Your task to perform on an android device: open app "Paramount+ | Peak Streaming" Image 0: 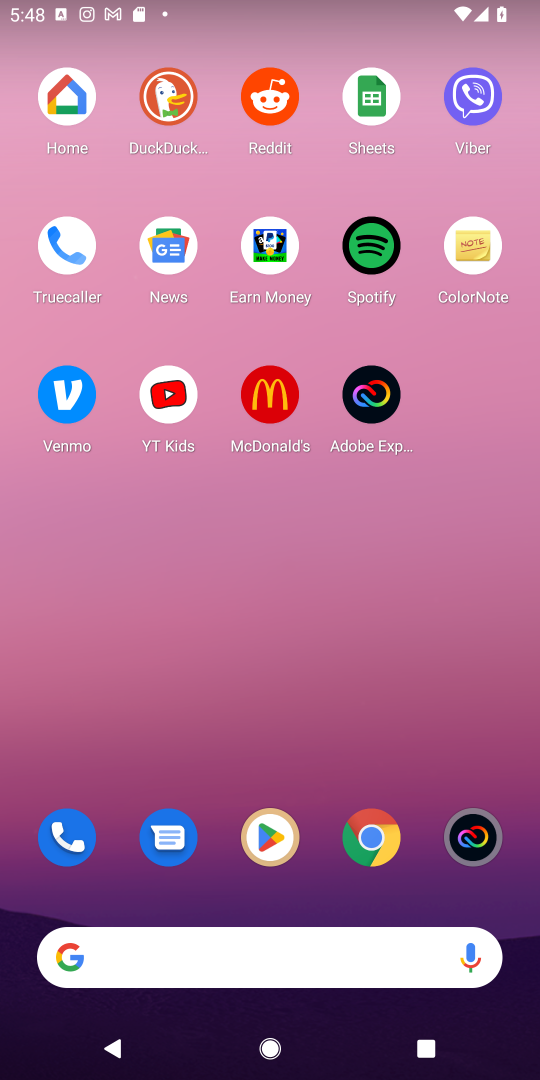
Step 0: press home button
Your task to perform on an android device: open app "Paramount+ | Peak Streaming" Image 1: 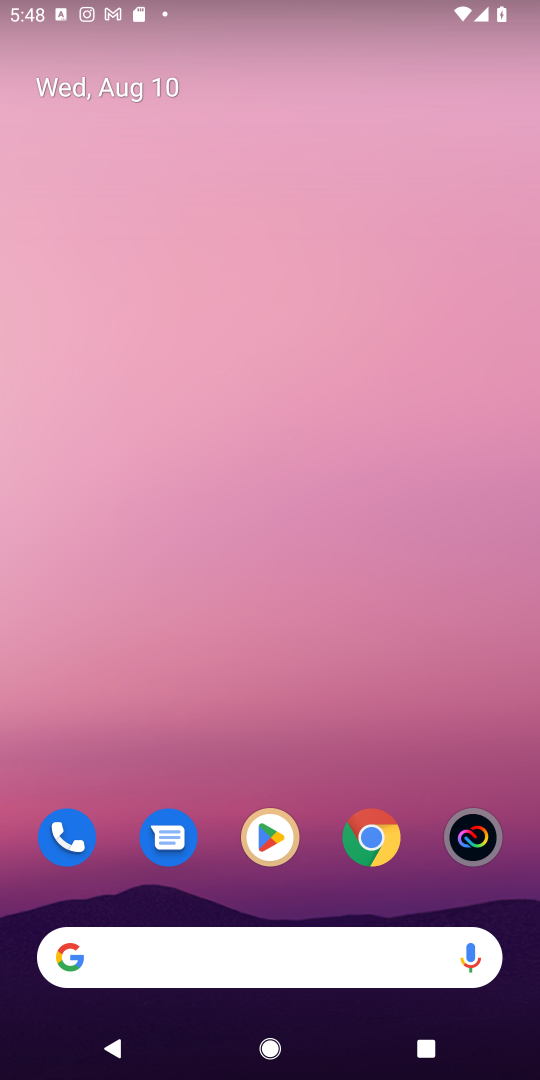
Step 1: click (268, 840)
Your task to perform on an android device: open app "Paramount+ | Peak Streaming" Image 2: 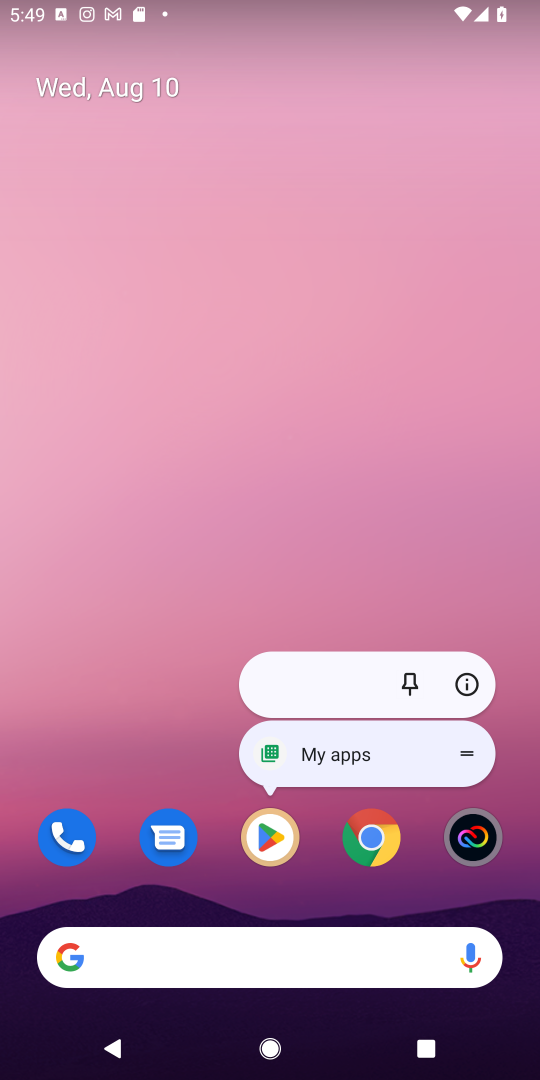
Step 2: click (268, 843)
Your task to perform on an android device: open app "Paramount+ | Peak Streaming" Image 3: 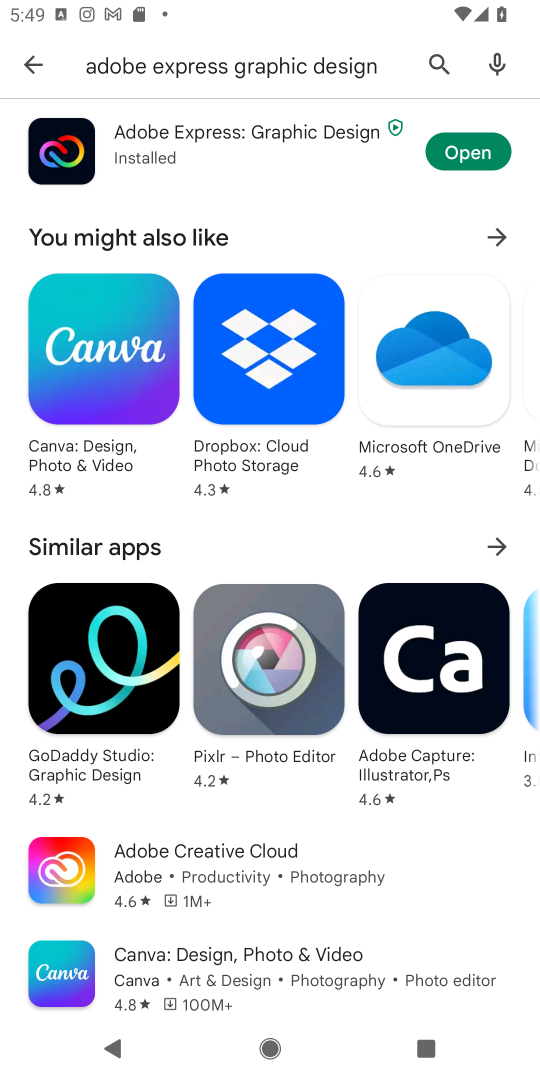
Step 3: click (431, 50)
Your task to perform on an android device: open app "Paramount+ | Peak Streaming" Image 4: 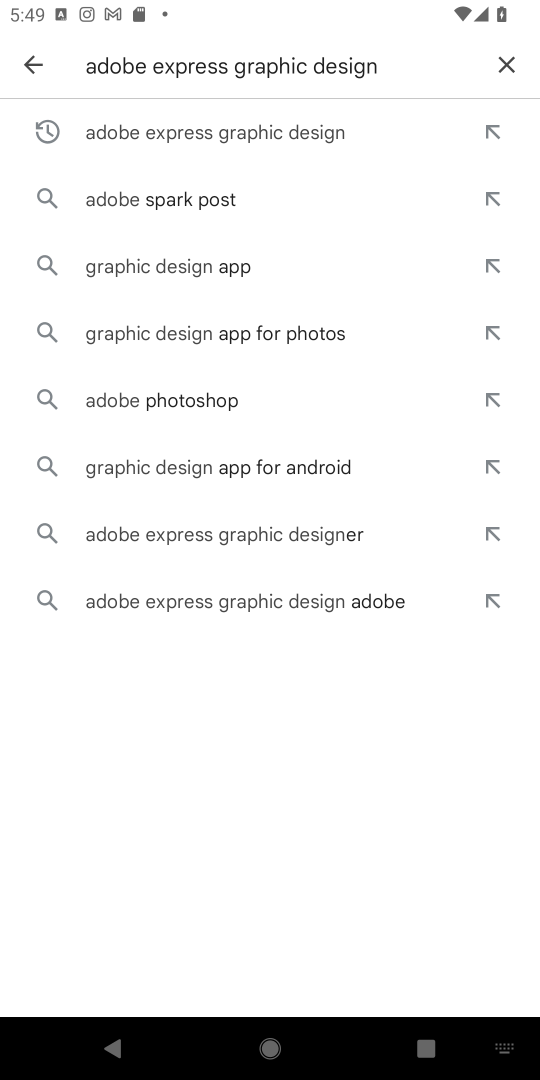
Step 4: click (508, 67)
Your task to perform on an android device: open app "Paramount+ | Peak Streaming" Image 5: 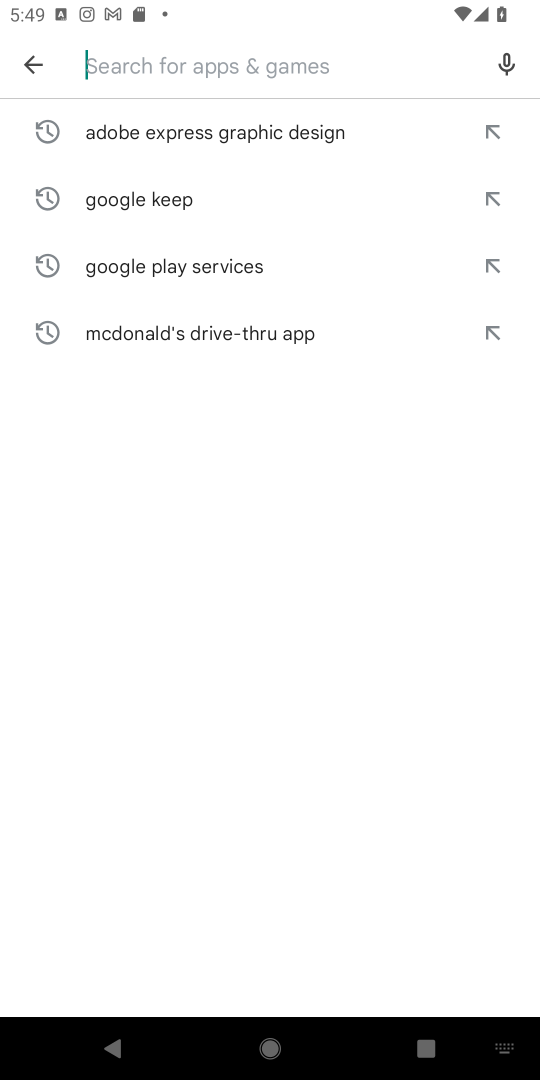
Step 5: type "Paramount+ | Peak Streaming"
Your task to perform on an android device: open app "Paramount+ | Peak Streaming" Image 6: 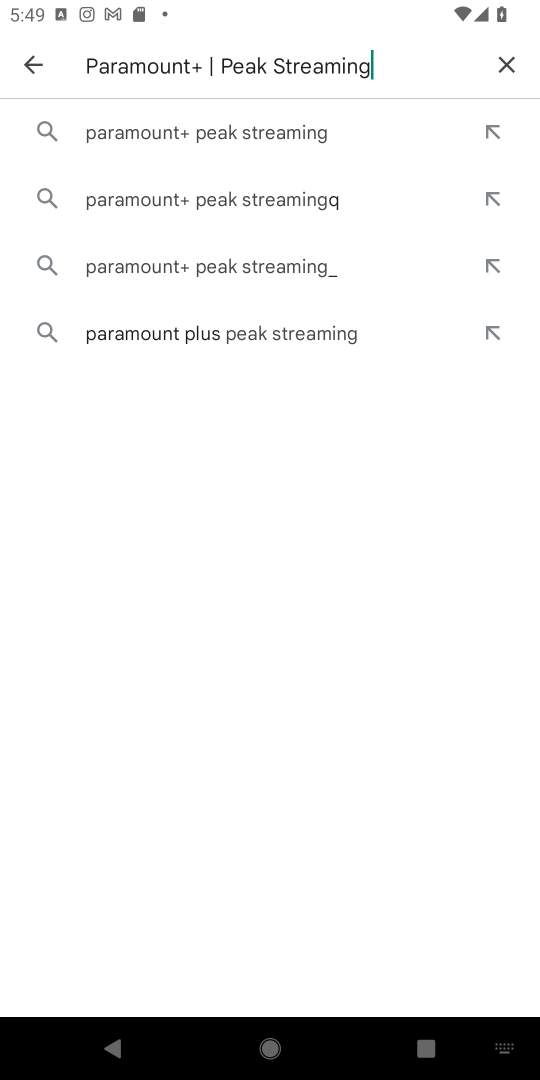
Step 6: click (236, 125)
Your task to perform on an android device: open app "Paramount+ | Peak Streaming" Image 7: 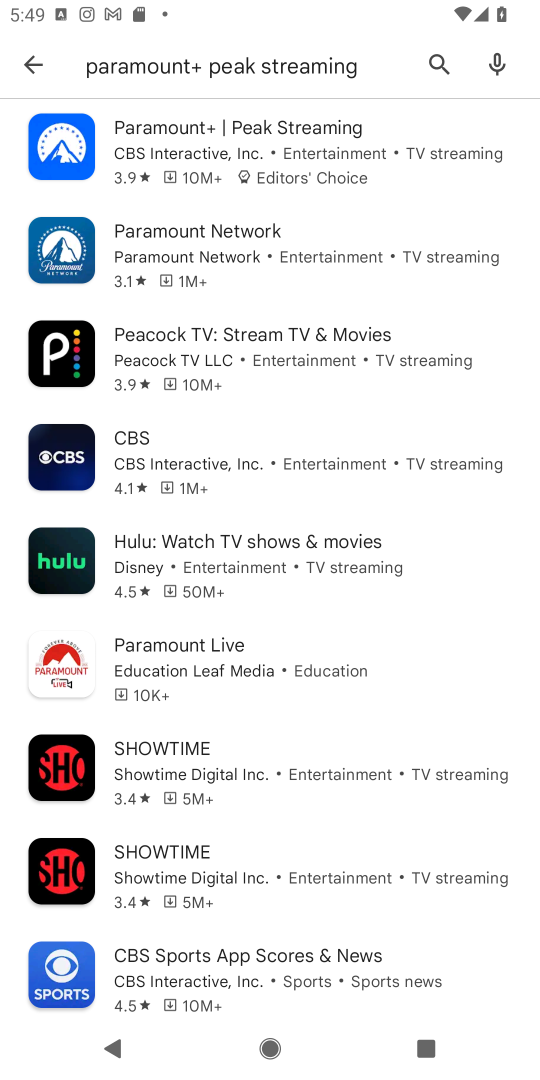
Step 7: click (273, 149)
Your task to perform on an android device: open app "Paramount+ | Peak Streaming" Image 8: 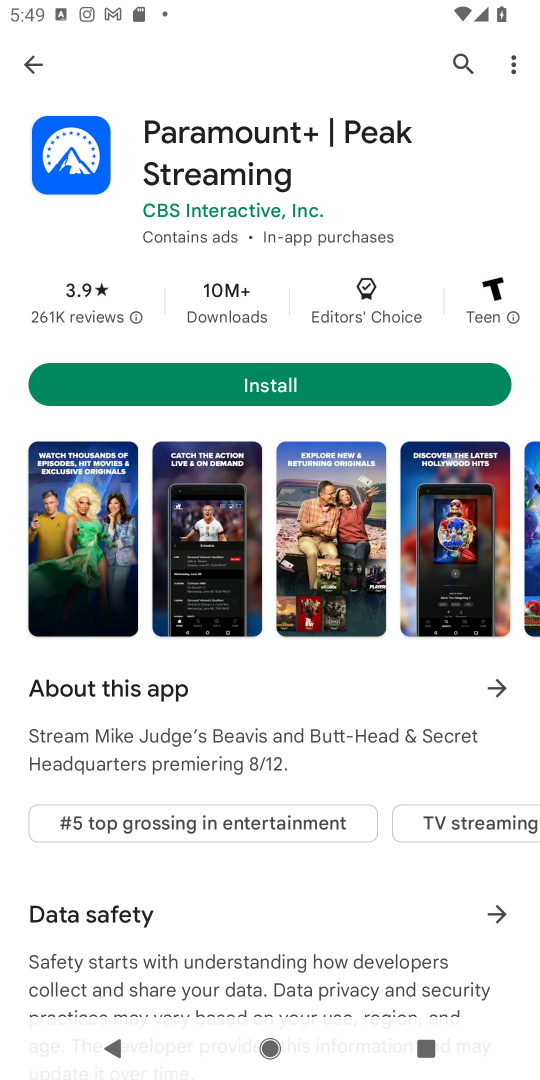
Step 8: task complete